Your task to perform on an android device: turn smart compose on in the gmail app Image 0: 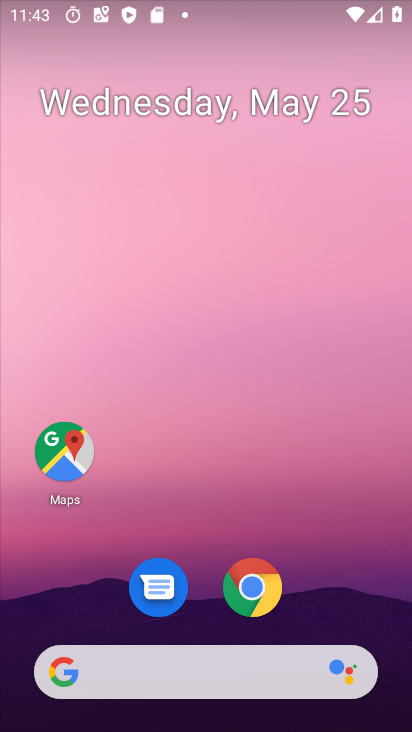
Step 0: drag from (272, 636) to (231, 109)
Your task to perform on an android device: turn smart compose on in the gmail app Image 1: 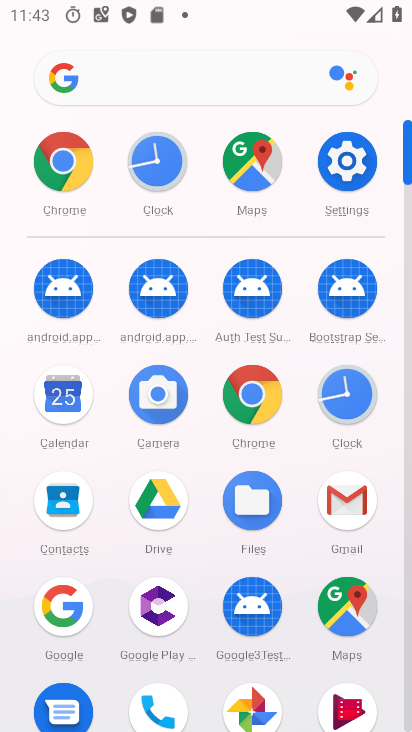
Step 1: click (367, 508)
Your task to perform on an android device: turn smart compose on in the gmail app Image 2: 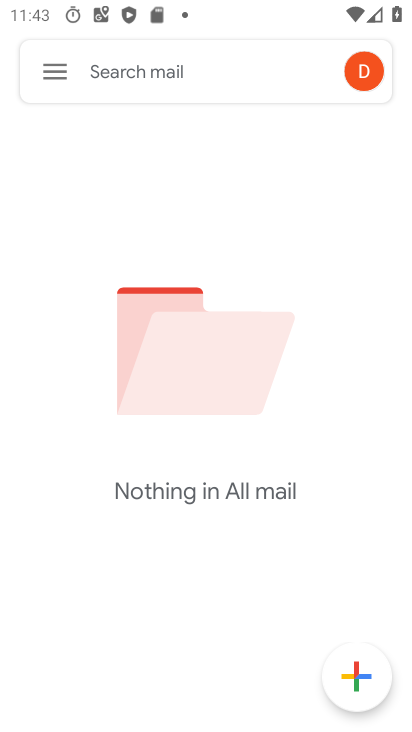
Step 2: click (47, 87)
Your task to perform on an android device: turn smart compose on in the gmail app Image 3: 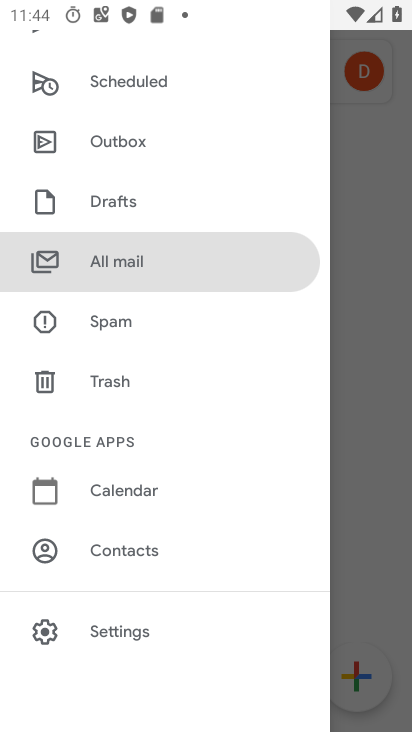
Step 3: click (113, 630)
Your task to perform on an android device: turn smart compose on in the gmail app Image 4: 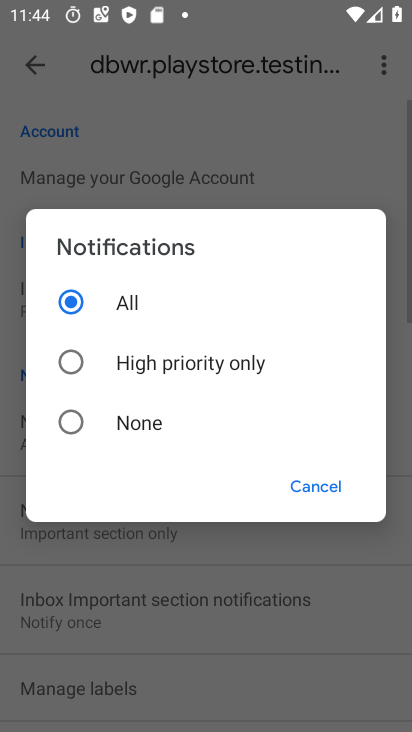
Step 4: click (294, 487)
Your task to perform on an android device: turn smart compose on in the gmail app Image 5: 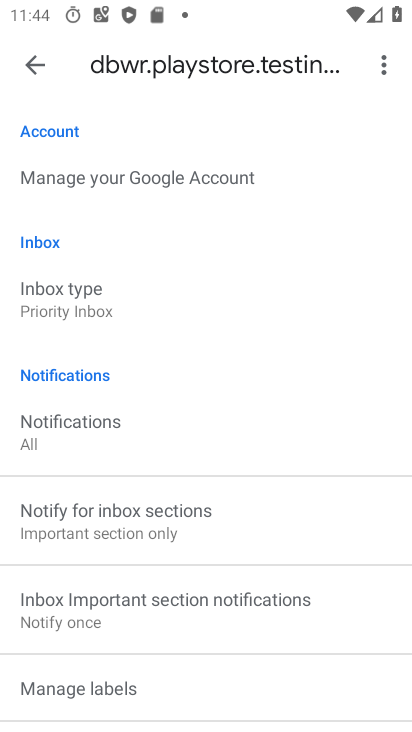
Step 5: drag from (192, 647) to (225, 285)
Your task to perform on an android device: turn smart compose on in the gmail app Image 6: 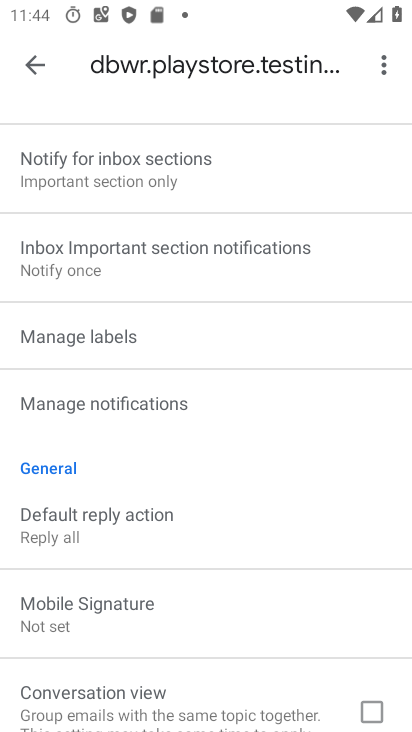
Step 6: drag from (148, 616) to (180, 283)
Your task to perform on an android device: turn smart compose on in the gmail app Image 7: 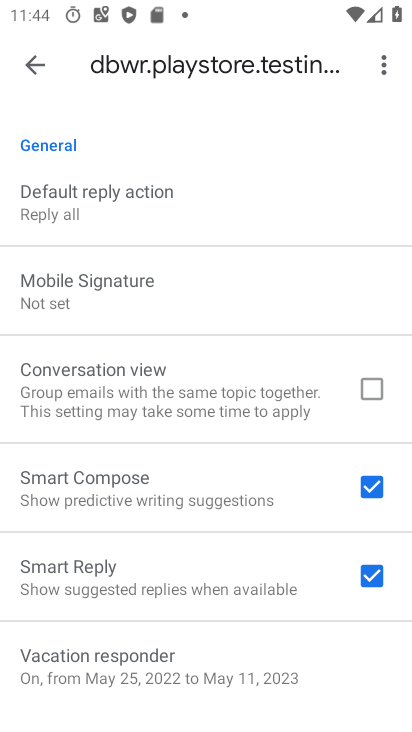
Step 7: click (218, 491)
Your task to perform on an android device: turn smart compose on in the gmail app Image 8: 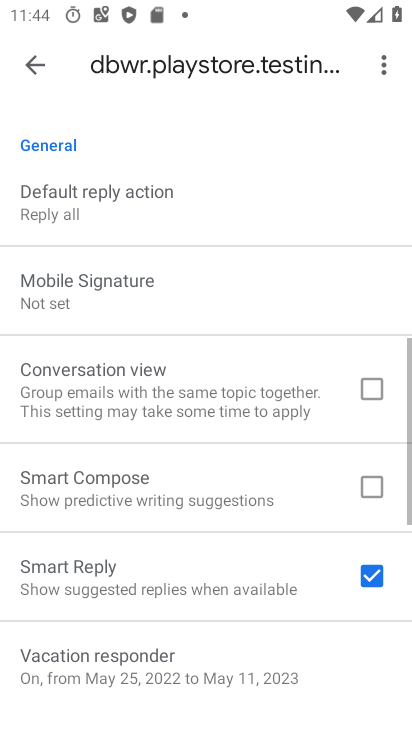
Step 8: click (218, 490)
Your task to perform on an android device: turn smart compose on in the gmail app Image 9: 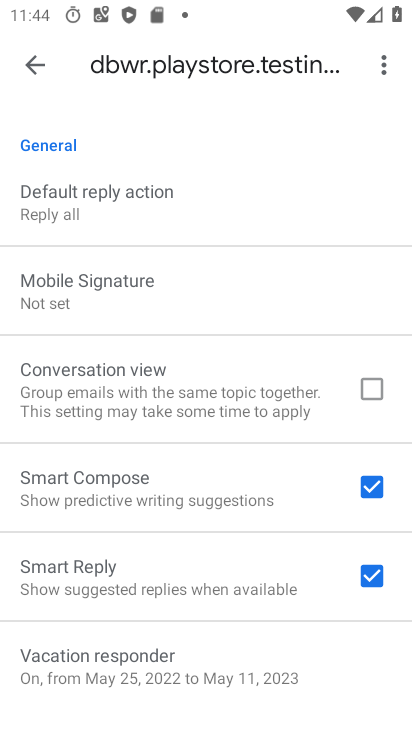
Step 9: task complete